Your task to perform on an android device: What is the speed of a bicycle? Image 0: 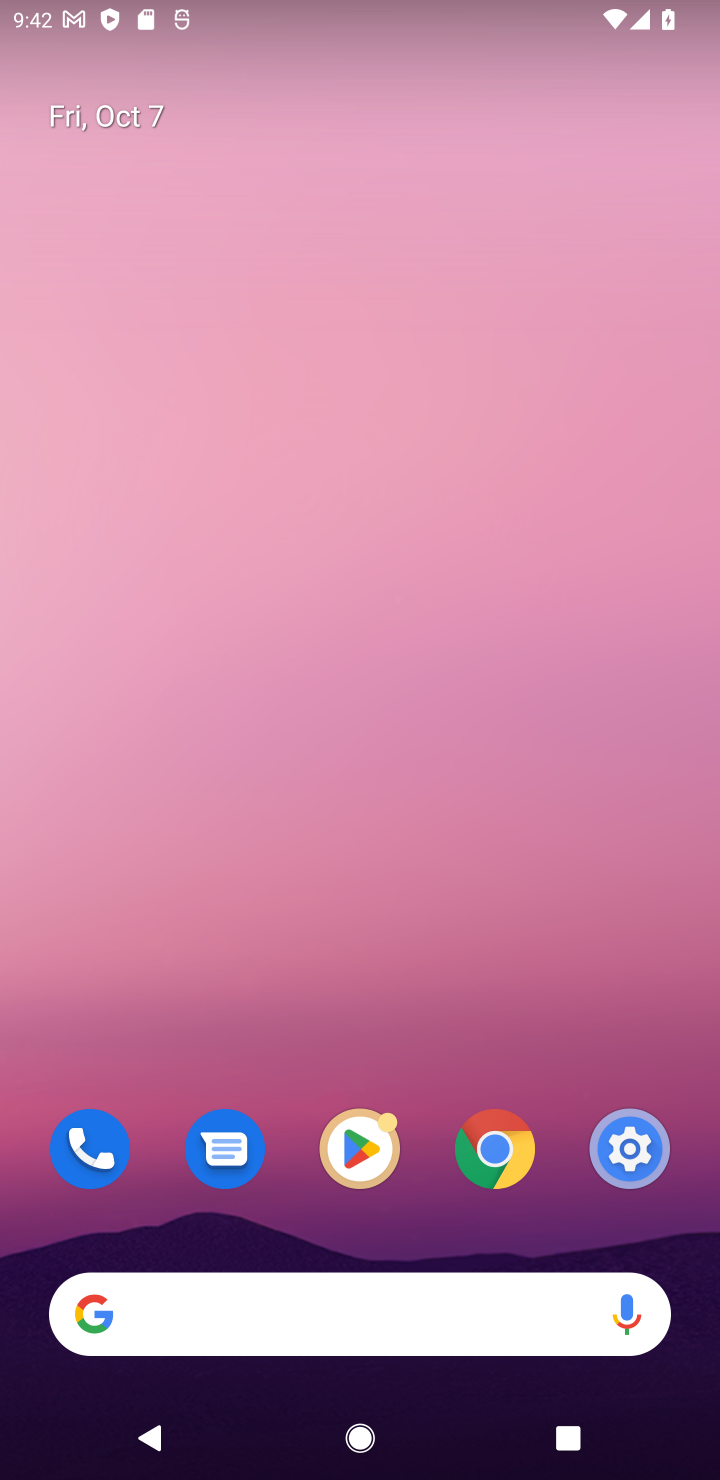
Step 0: click (356, 1338)
Your task to perform on an android device: What is the speed of a bicycle? Image 1: 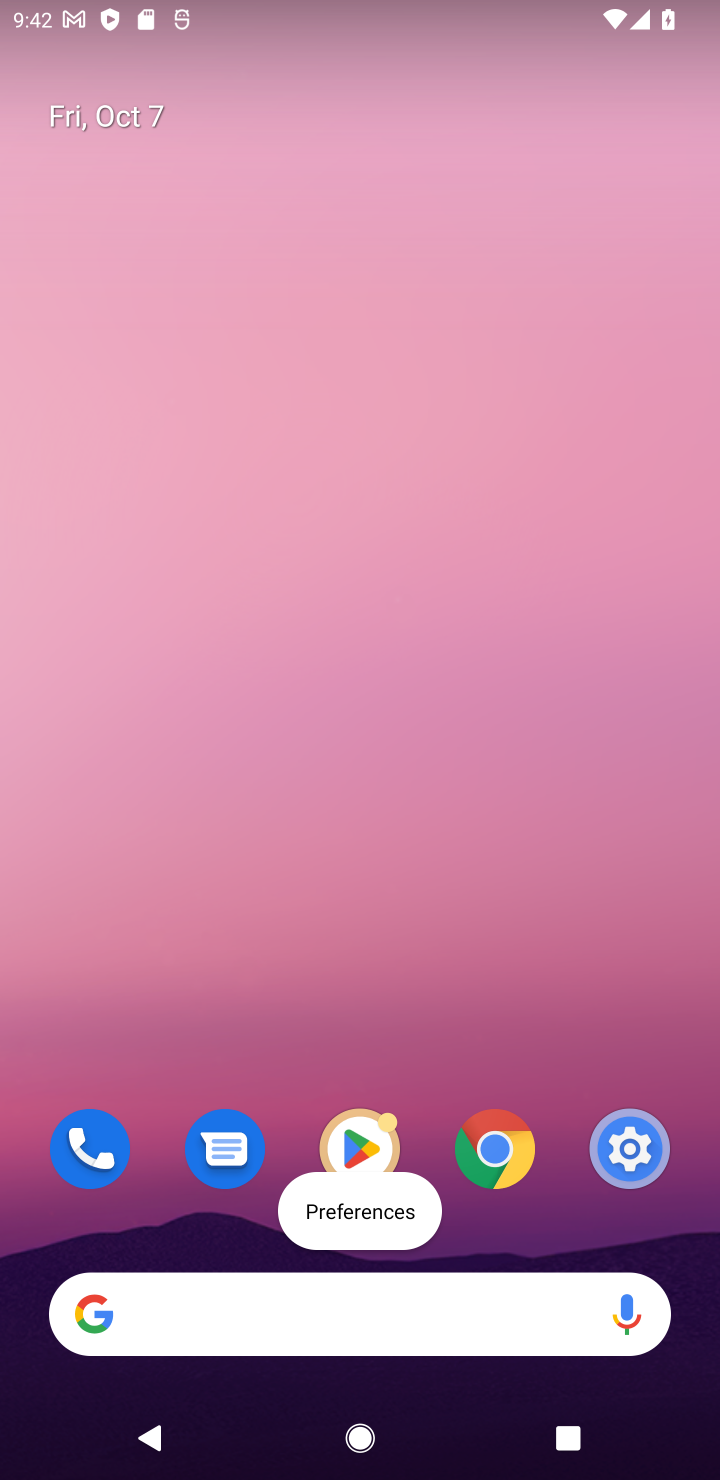
Step 1: type "What is the speed of a bicycle?"
Your task to perform on an android device: What is the speed of a bicycle? Image 2: 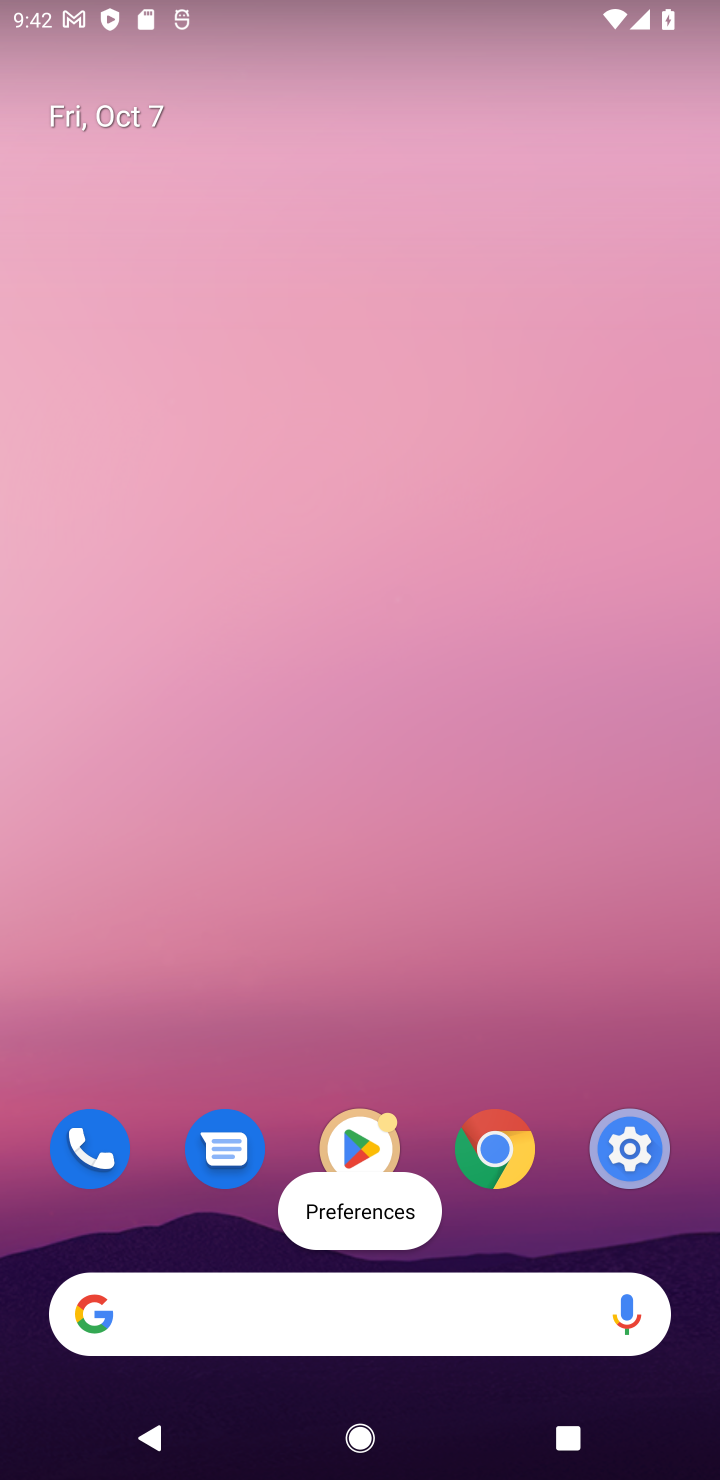
Step 2: click (349, 1307)
Your task to perform on an android device: What is the speed of a bicycle? Image 3: 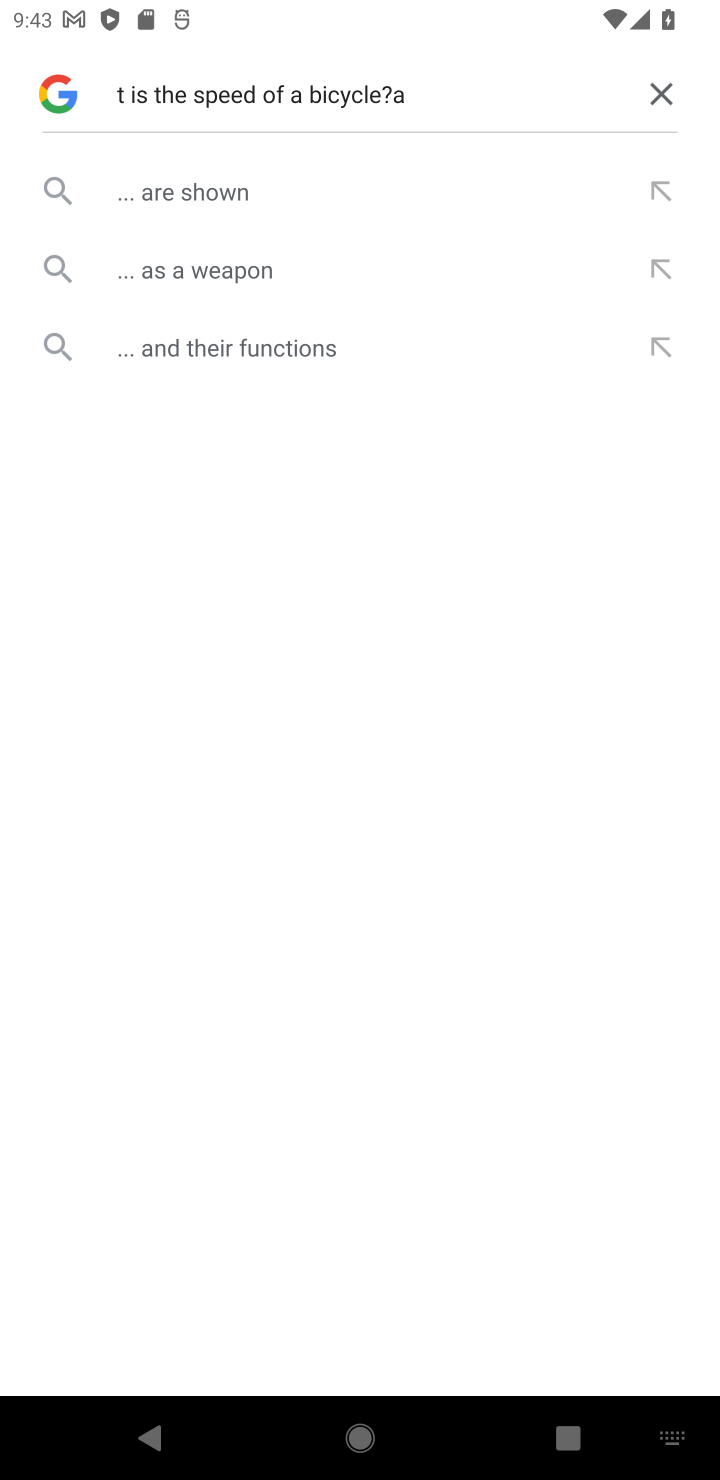
Step 3: click (434, 189)
Your task to perform on an android device: What is the speed of a bicycle? Image 4: 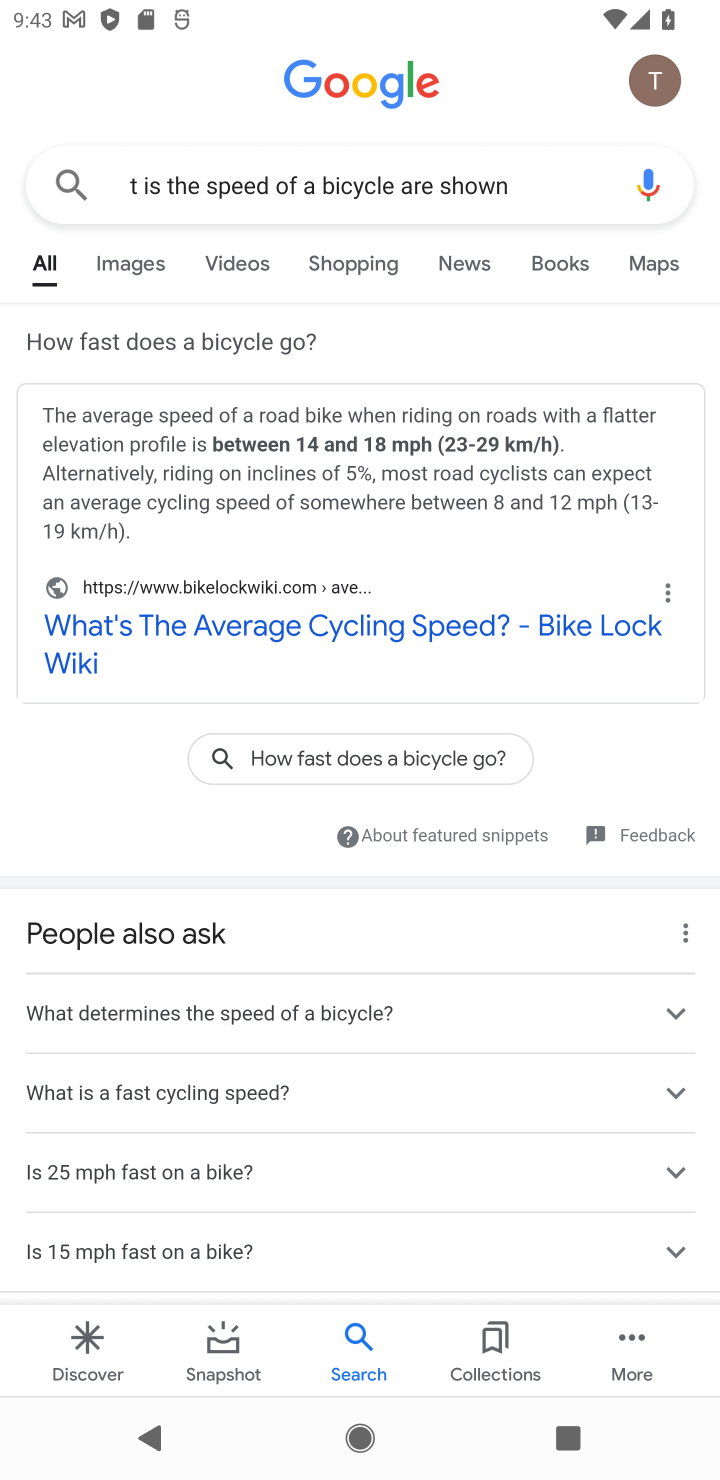
Step 4: click (387, 602)
Your task to perform on an android device: What is the speed of a bicycle? Image 5: 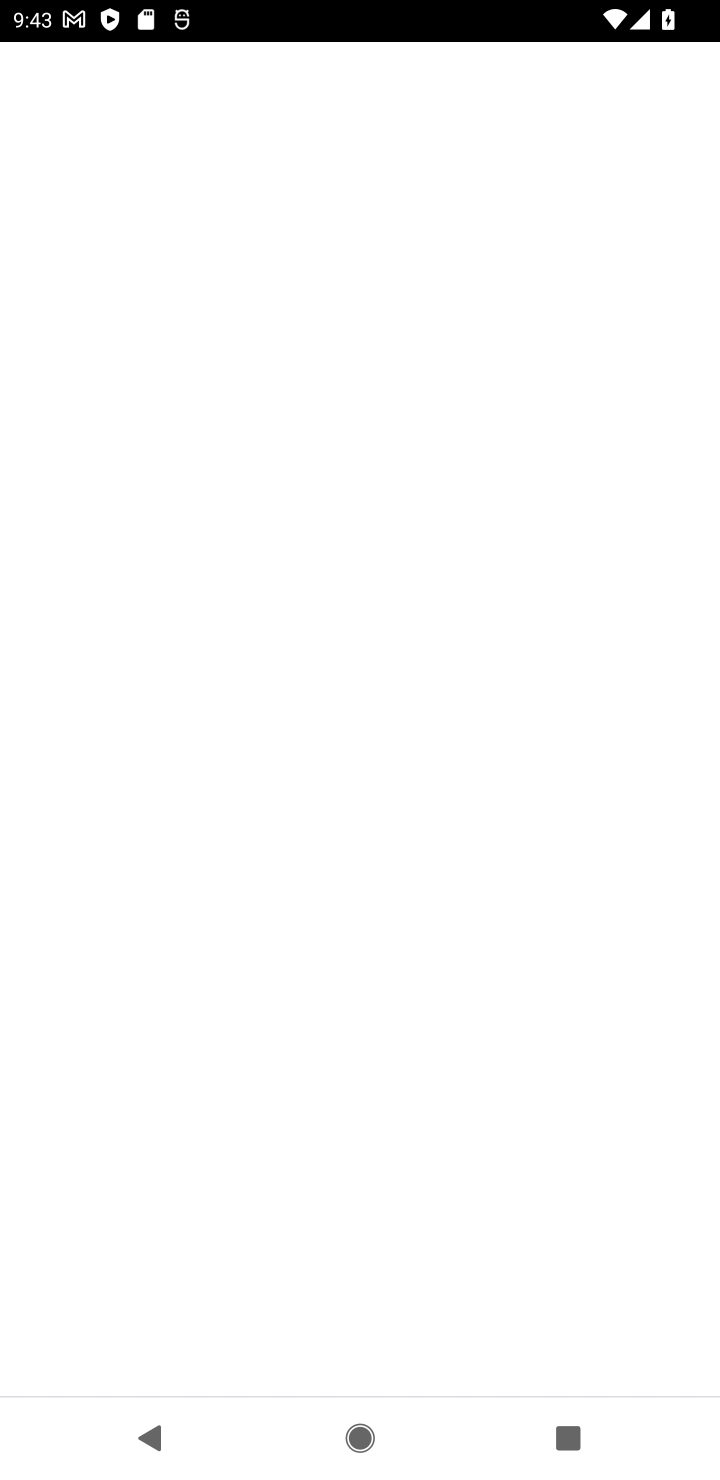
Step 5: task complete